Your task to perform on an android device: delete the emails in spam in the gmail app Image 0: 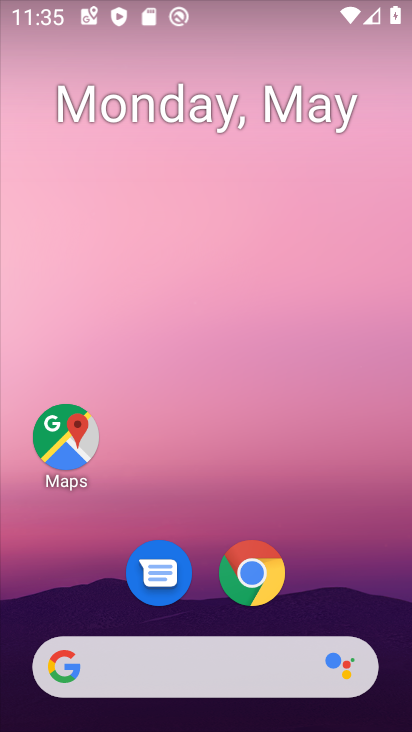
Step 0: drag from (299, 532) to (274, 354)
Your task to perform on an android device: delete the emails in spam in the gmail app Image 1: 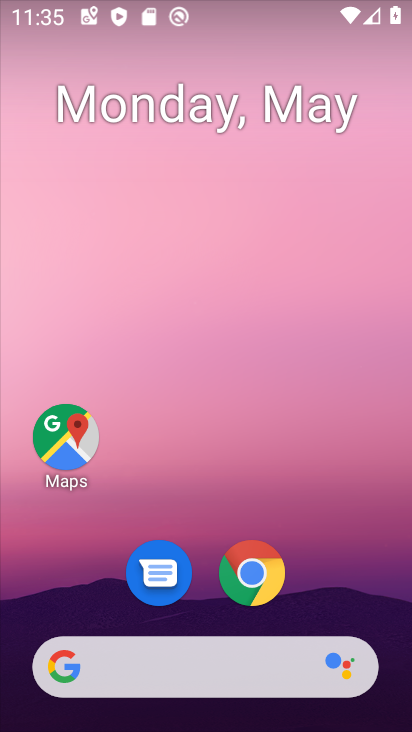
Step 1: drag from (268, 590) to (233, 320)
Your task to perform on an android device: delete the emails in spam in the gmail app Image 2: 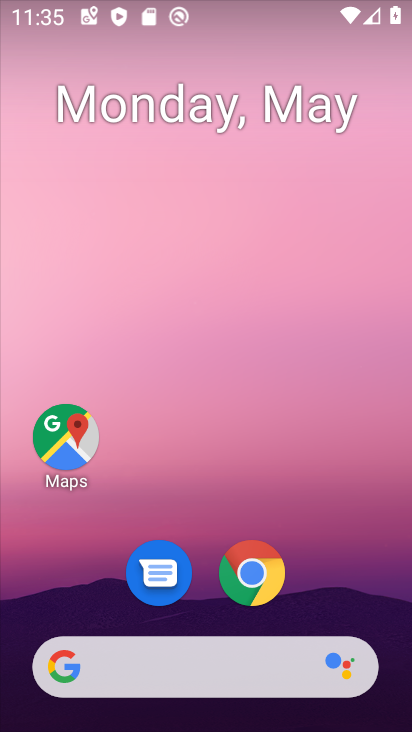
Step 2: drag from (275, 701) to (217, 249)
Your task to perform on an android device: delete the emails in spam in the gmail app Image 3: 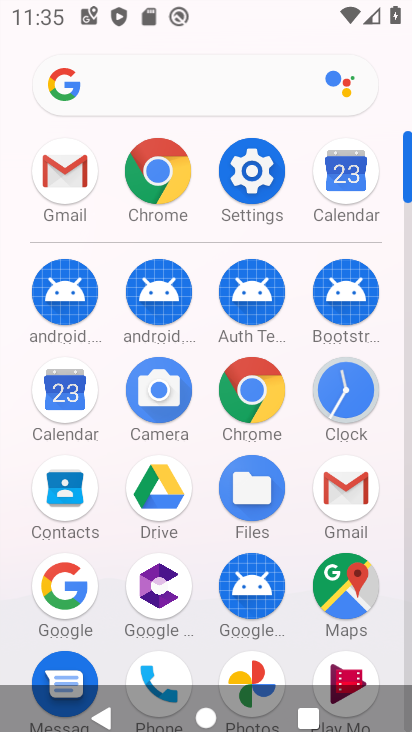
Step 3: click (49, 171)
Your task to perform on an android device: delete the emails in spam in the gmail app Image 4: 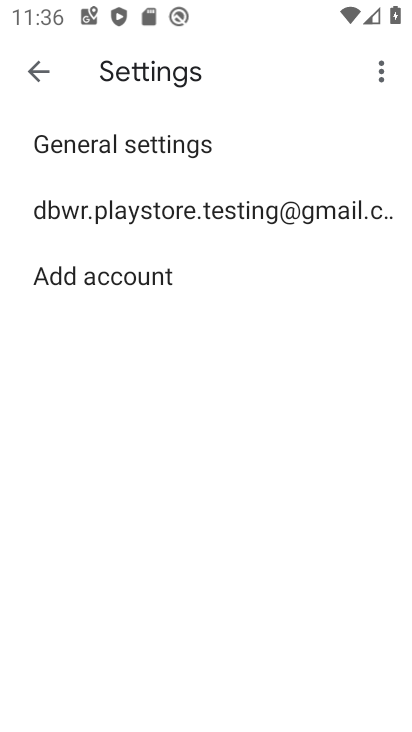
Step 4: click (36, 62)
Your task to perform on an android device: delete the emails in spam in the gmail app Image 5: 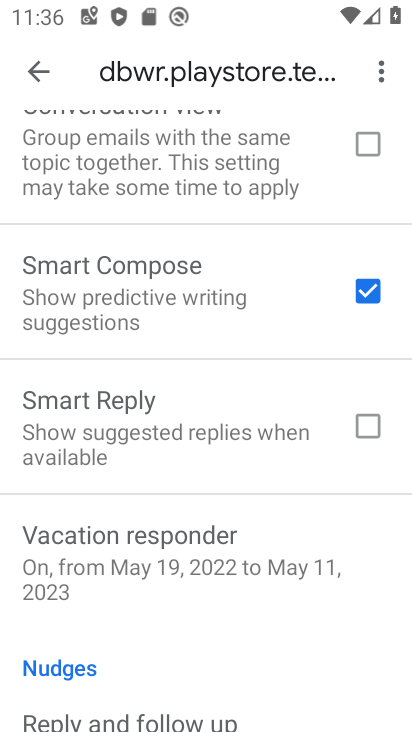
Step 5: click (37, 80)
Your task to perform on an android device: delete the emails in spam in the gmail app Image 6: 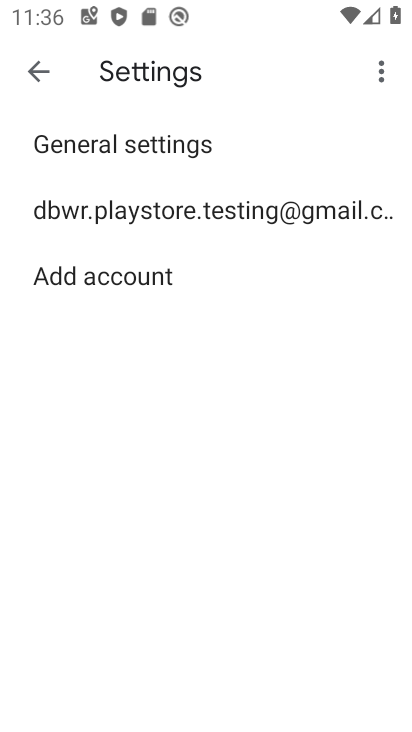
Step 6: click (37, 80)
Your task to perform on an android device: delete the emails in spam in the gmail app Image 7: 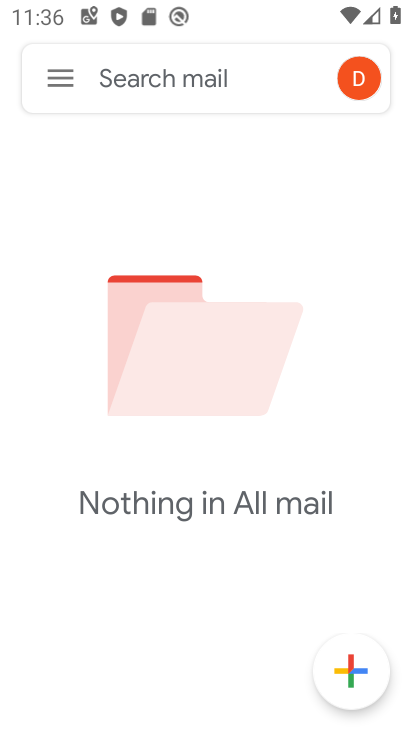
Step 7: click (47, 80)
Your task to perform on an android device: delete the emails in spam in the gmail app Image 8: 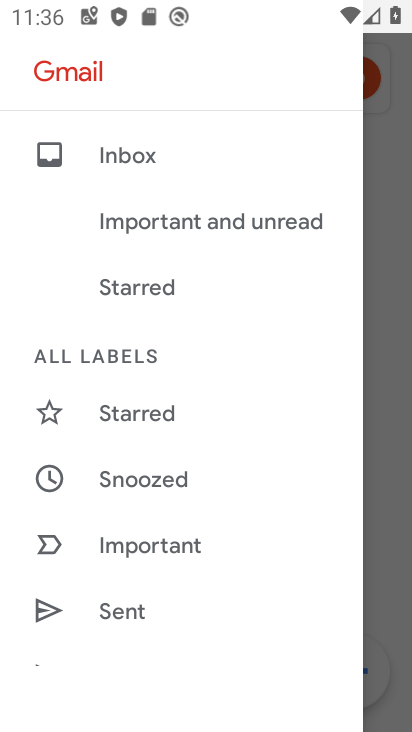
Step 8: drag from (192, 562) to (182, 327)
Your task to perform on an android device: delete the emails in spam in the gmail app Image 9: 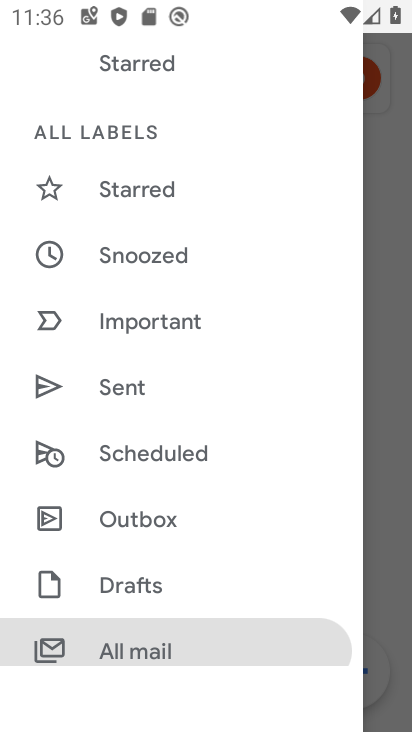
Step 9: drag from (150, 591) to (147, 308)
Your task to perform on an android device: delete the emails in spam in the gmail app Image 10: 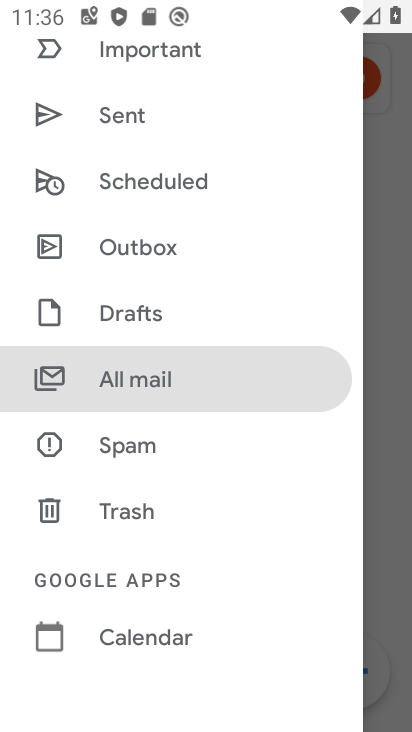
Step 10: click (141, 462)
Your task to perform on an android device: delete the emails in spam in the gmail app Image 11: 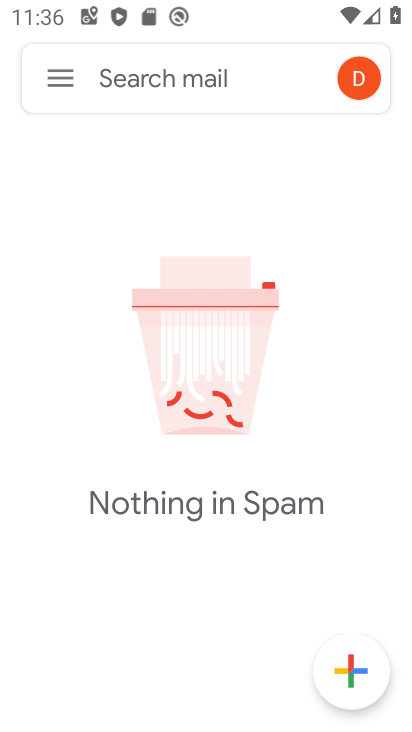
Step 11: task complete